Your task to perform on an android device: Search for macbook on costco, select the first entry, and add it to the cart. Image 0: 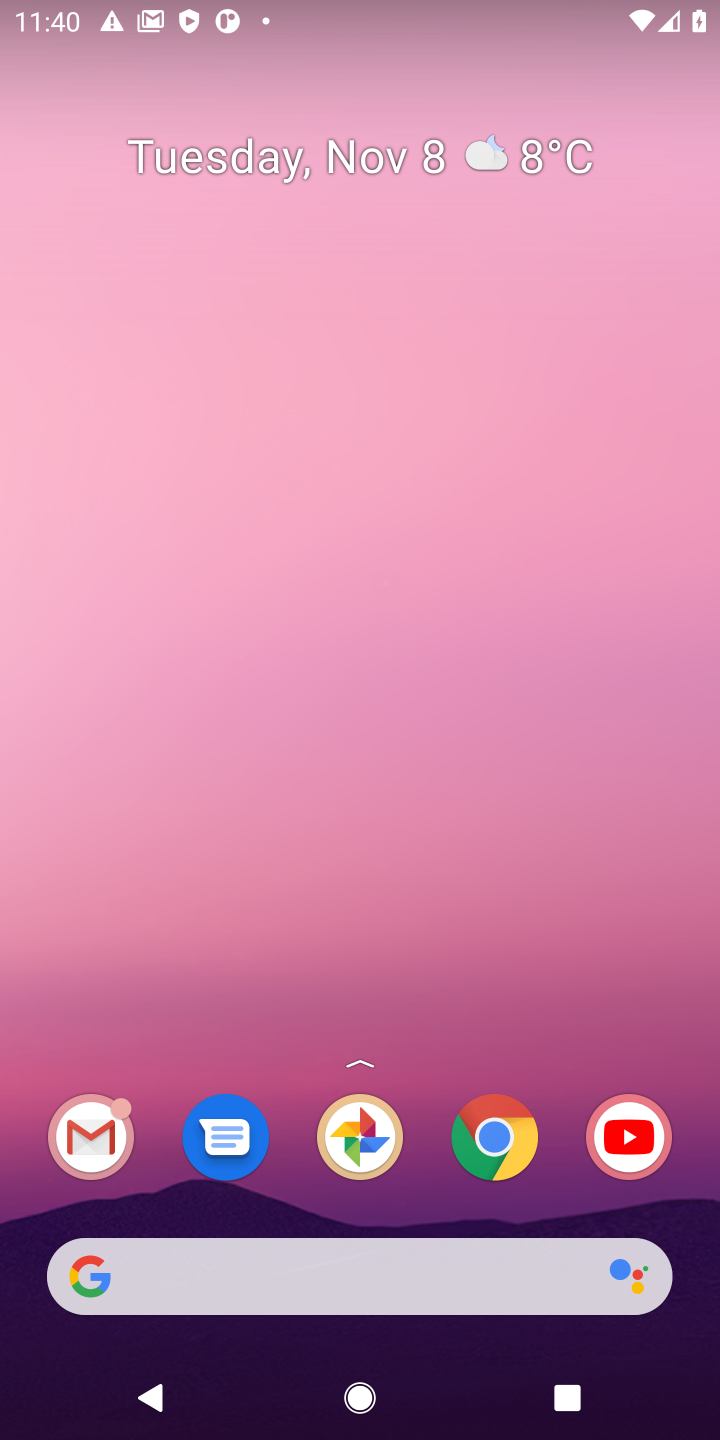
Step 0: click (500, 1151)
Your task to perform on an android device: Search for macbook on costco, select the first entry, and add it to the cart. Image 1: 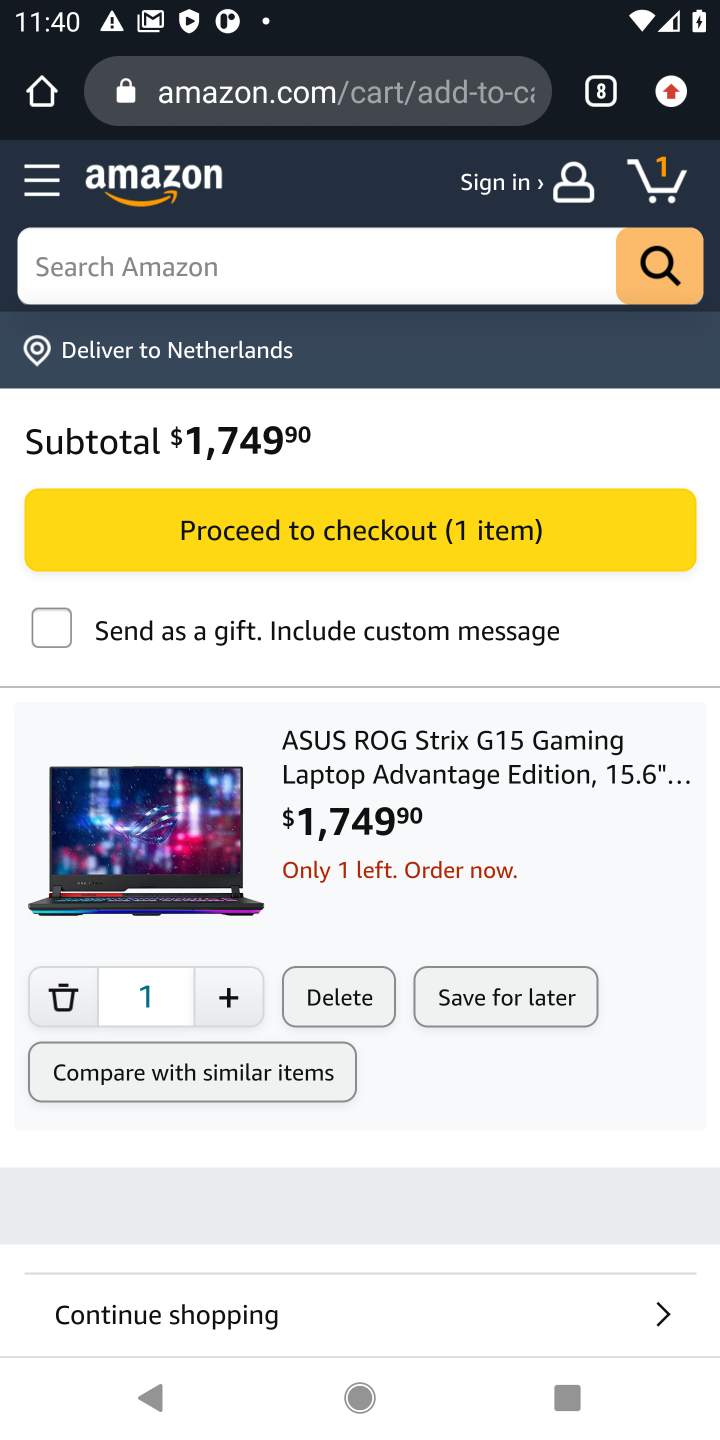
Step 1: click (605, 106)
Your task to perform on an android device: Search for macbook on costco, select the first entry, and add it to the cart. Image 2: 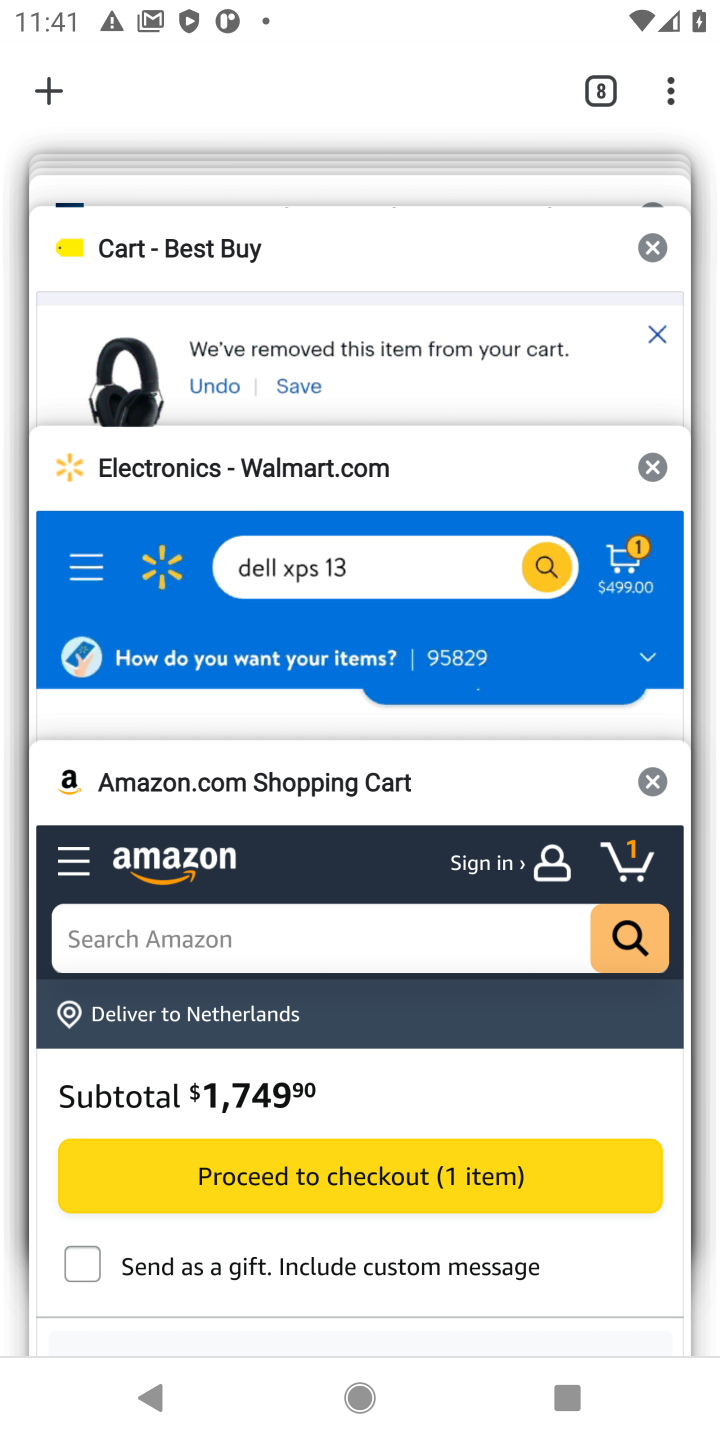
Step 2: drag from (451, 176) to (452, 561)
Your task to perform on an android device: Search for macbook on costco, select the first entry, and add it to the cart. Image 3: 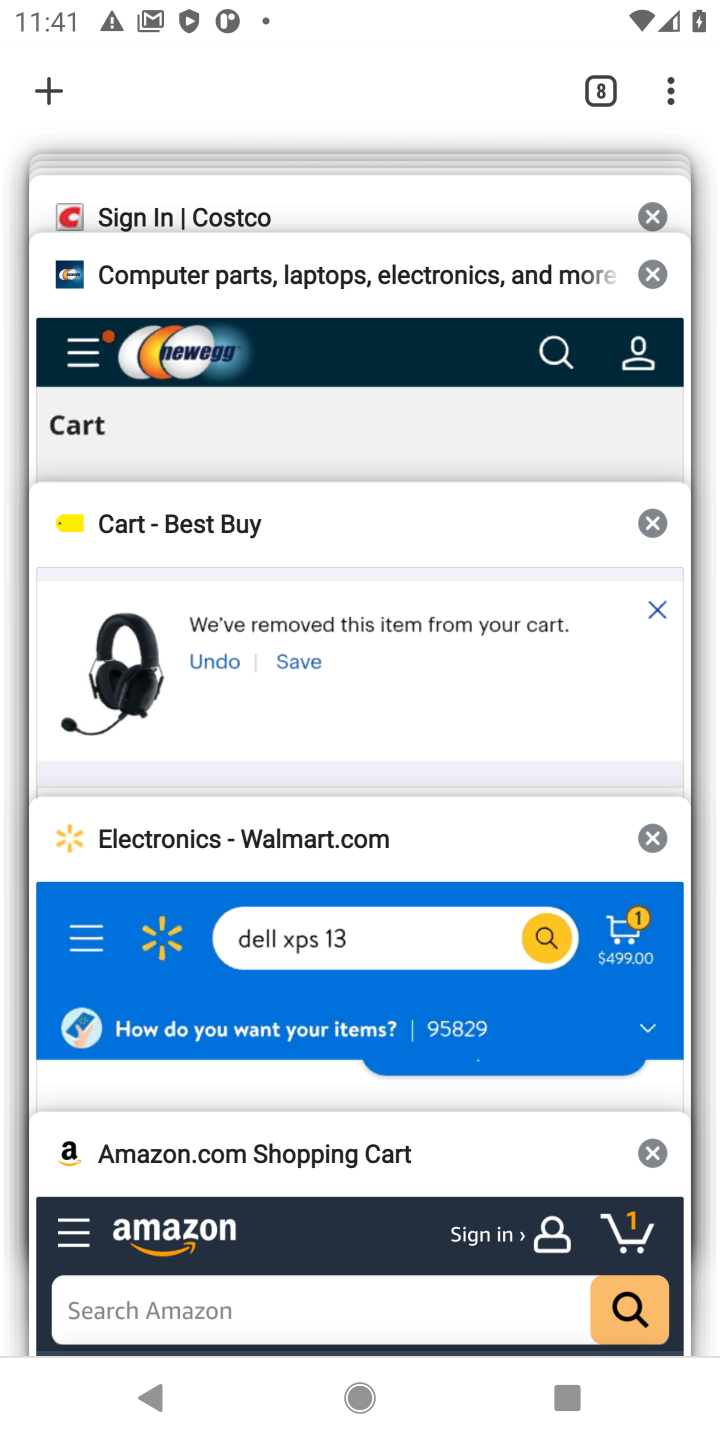
Step 3: click (434, 206)
Your task to perform on an android device: Search for macbook on costco, select the first entry, and add it to the cart. Image 4: 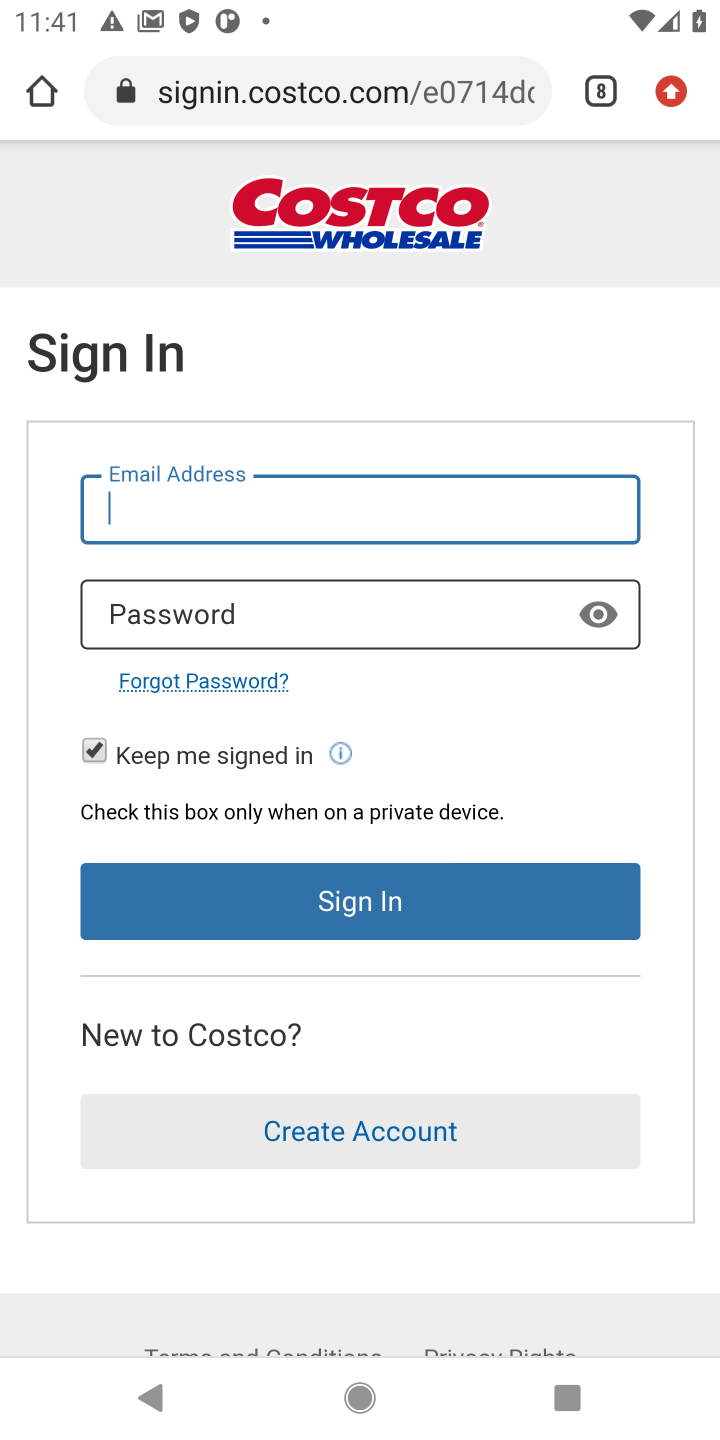
Step 4: press back button
Your task to perform on an android device: Search for macbook on costco, select the first entry, and add it to the cart. Image 5: 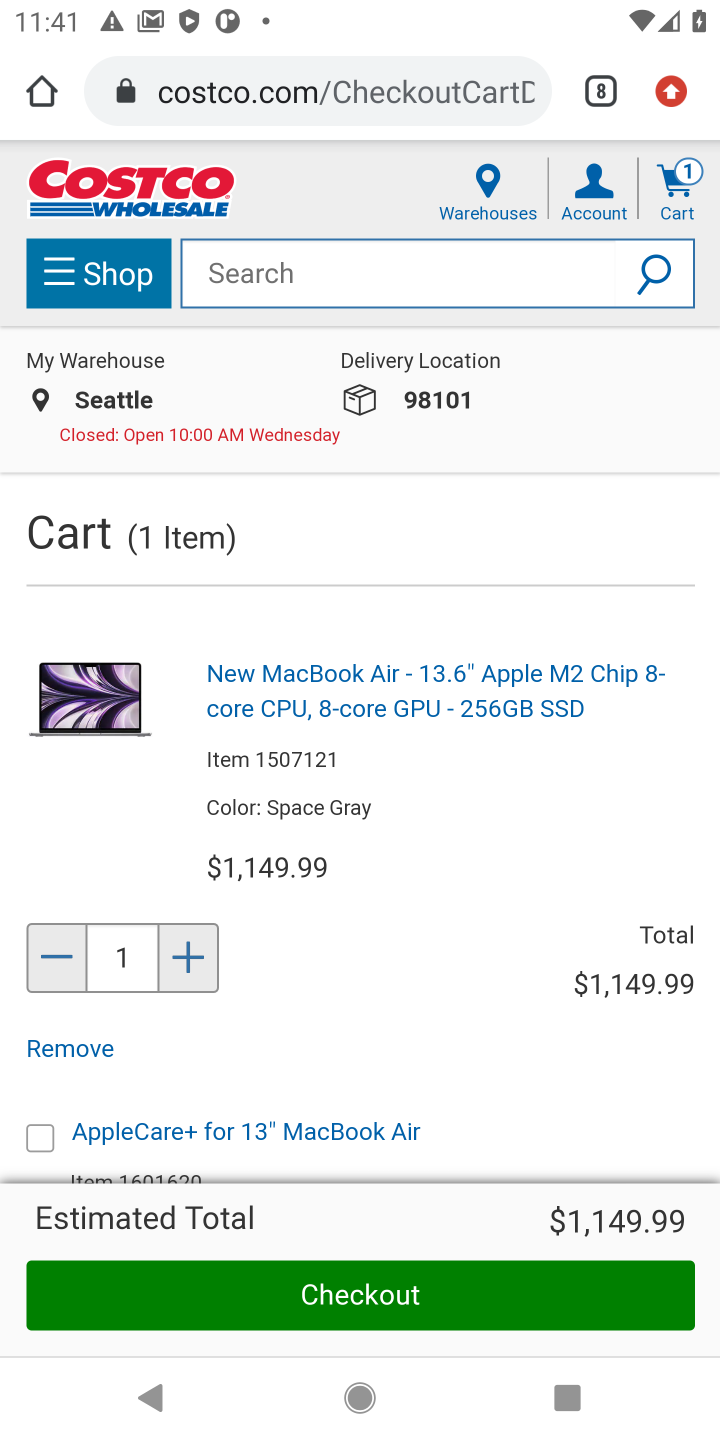
Step 5: click (231, 282)
Your task to perform on an android device: Search for macbook on costco, select the first entry, and add it to the cart. Image 6: 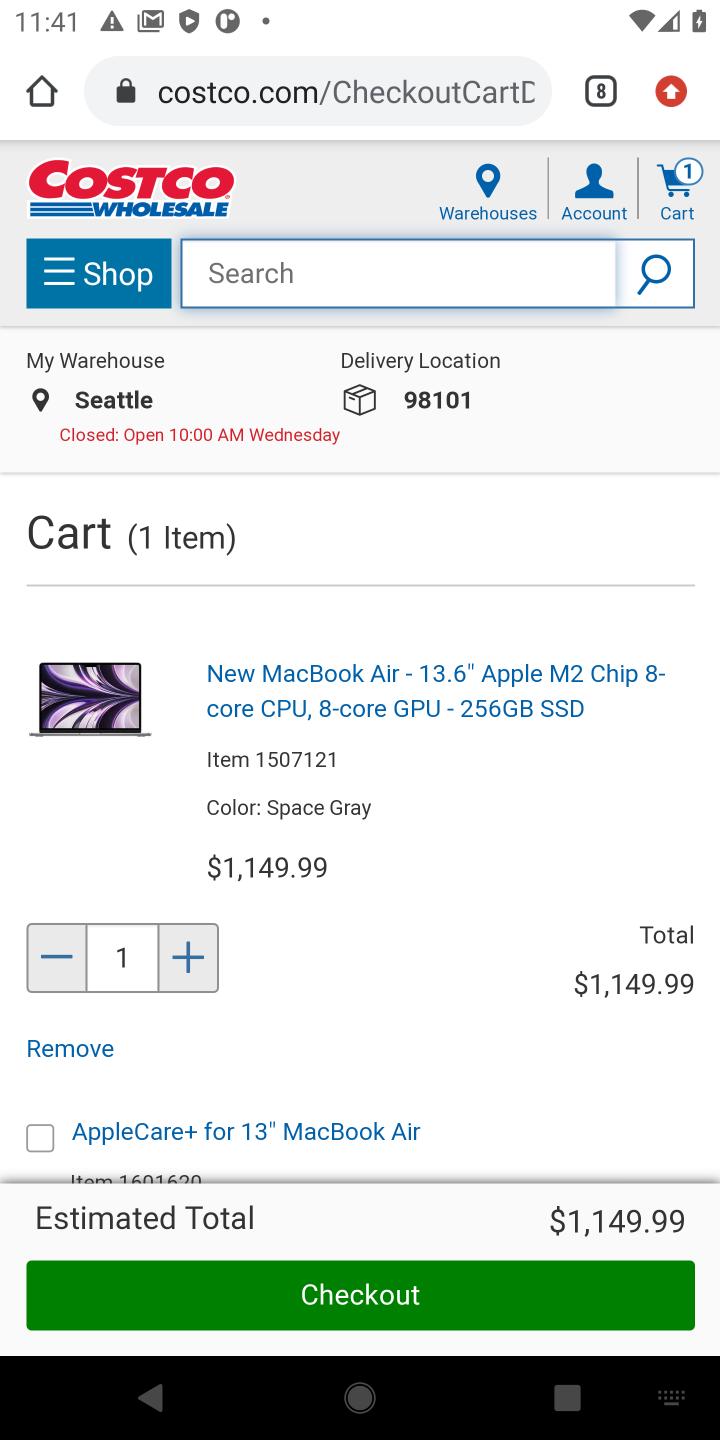
Step 6: type "macbook"
Your task to perform on an android device: Search for macbook on costco, select the first entry, and add it to the cart. Image 7: 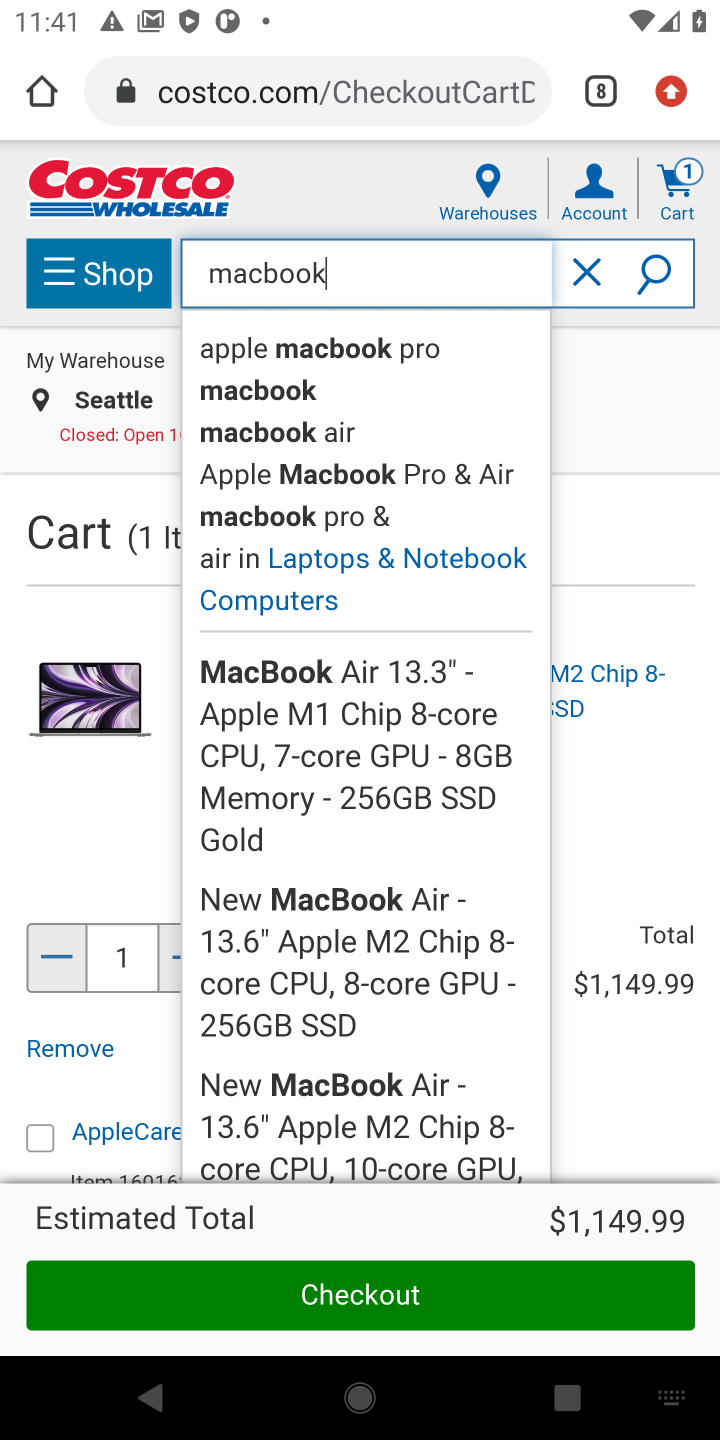
Step 7: click (304, 338)
Your task to perform on an android device: Search for macbook on costco, select the first entry, and add it to the cart. Image 8: 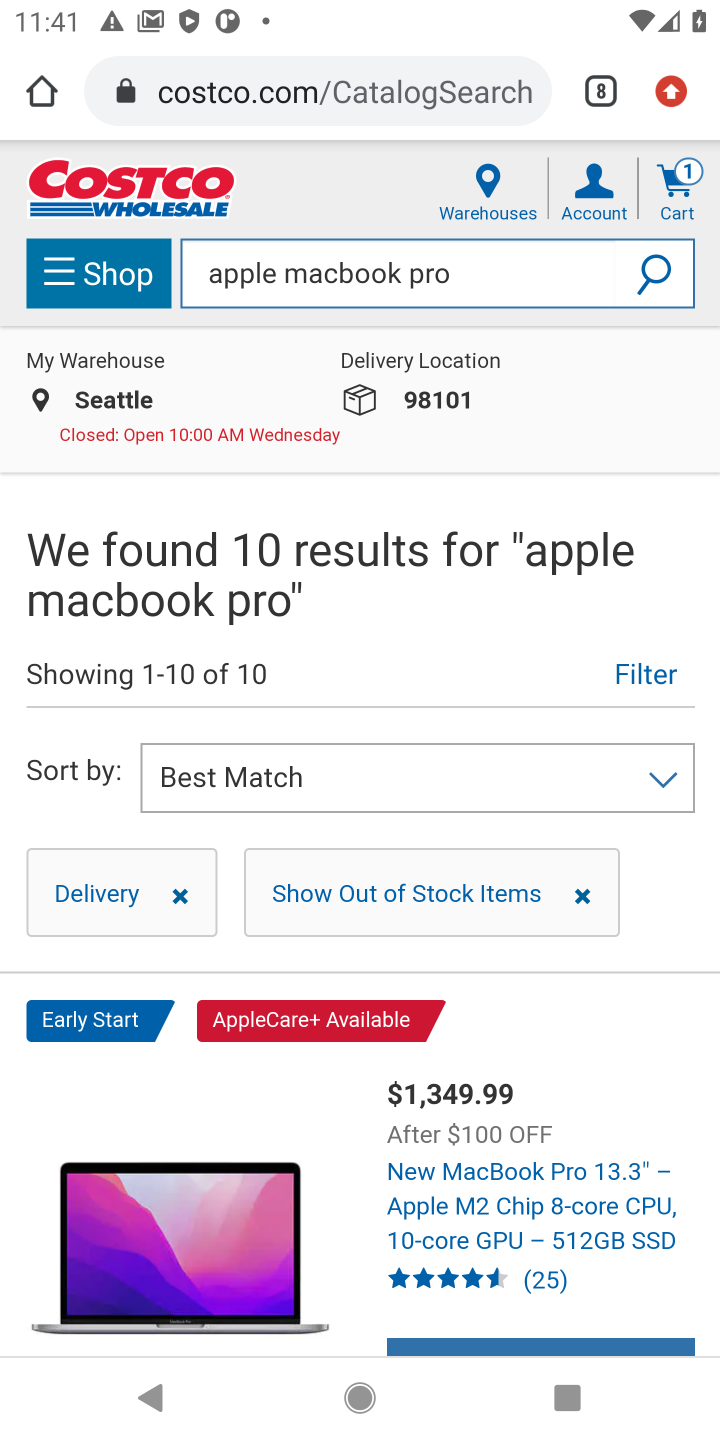
Step 8: drag from (626, 608) to (644, 530)
Your task to perform on an android device: Search for macbook on costco, select the first entry, and add it to the cart. Image 9: 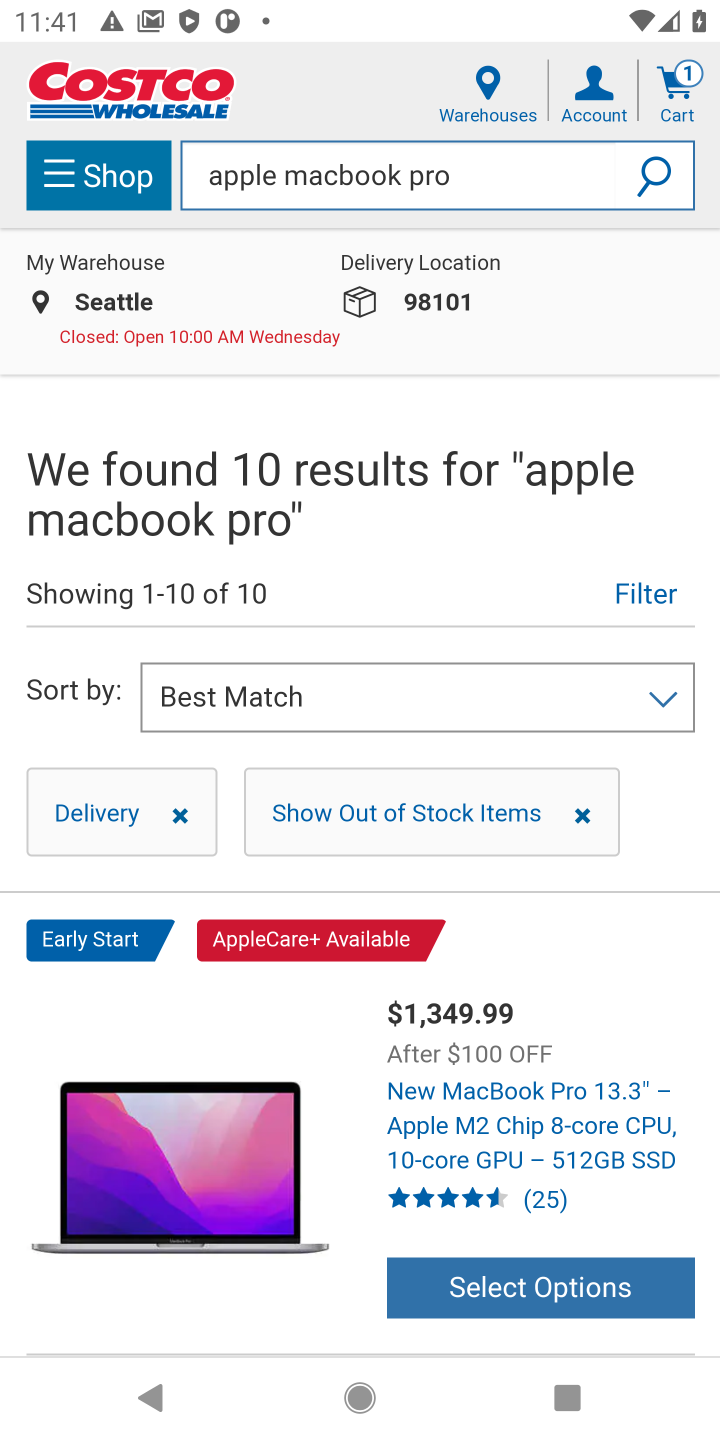
Step 9: click (534, 1118)
Your task to perform on an android device: Search for macbook on costco, select the first entry, and add it to the cart. Image 10: 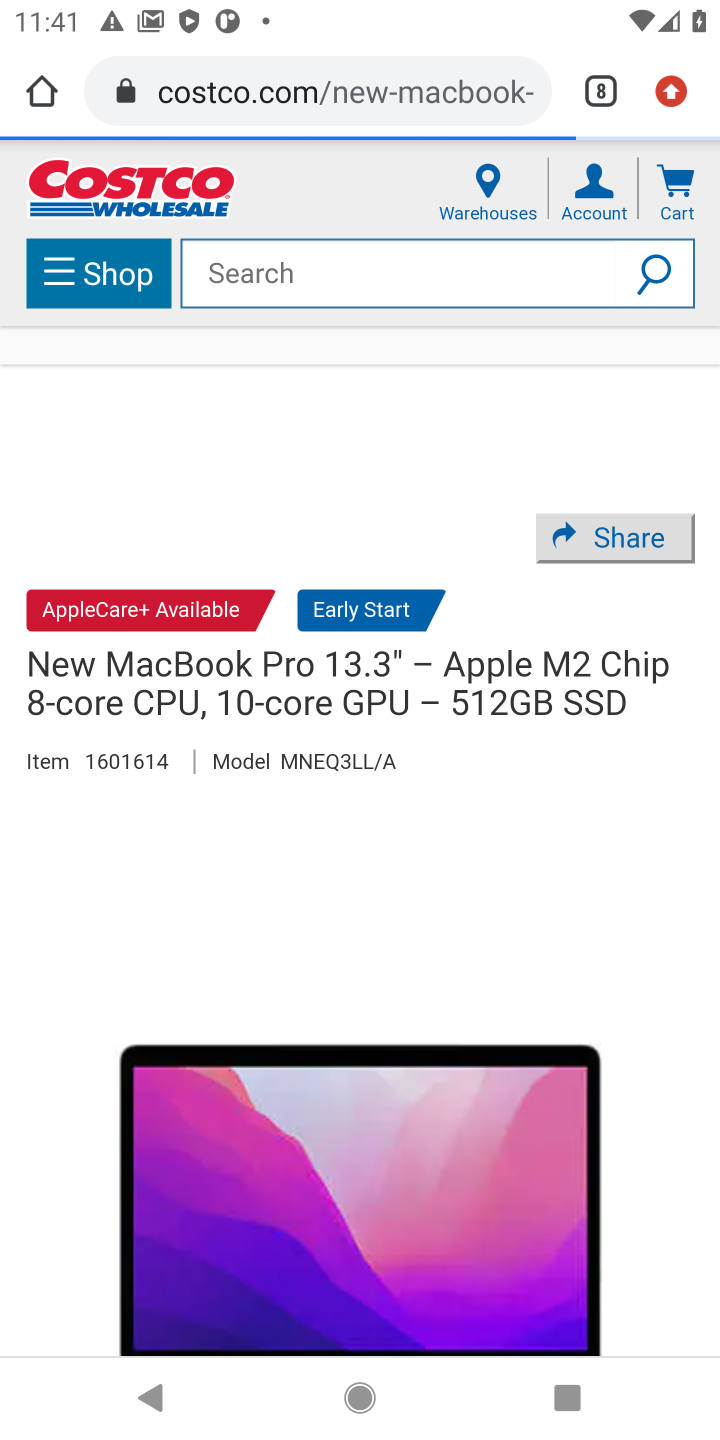
Step 10: drag from (567, 866) to (692, 16)
Your task to perform on an android device: Search for macbook on costco, select the first entry, and add it to the cart. Image 11: 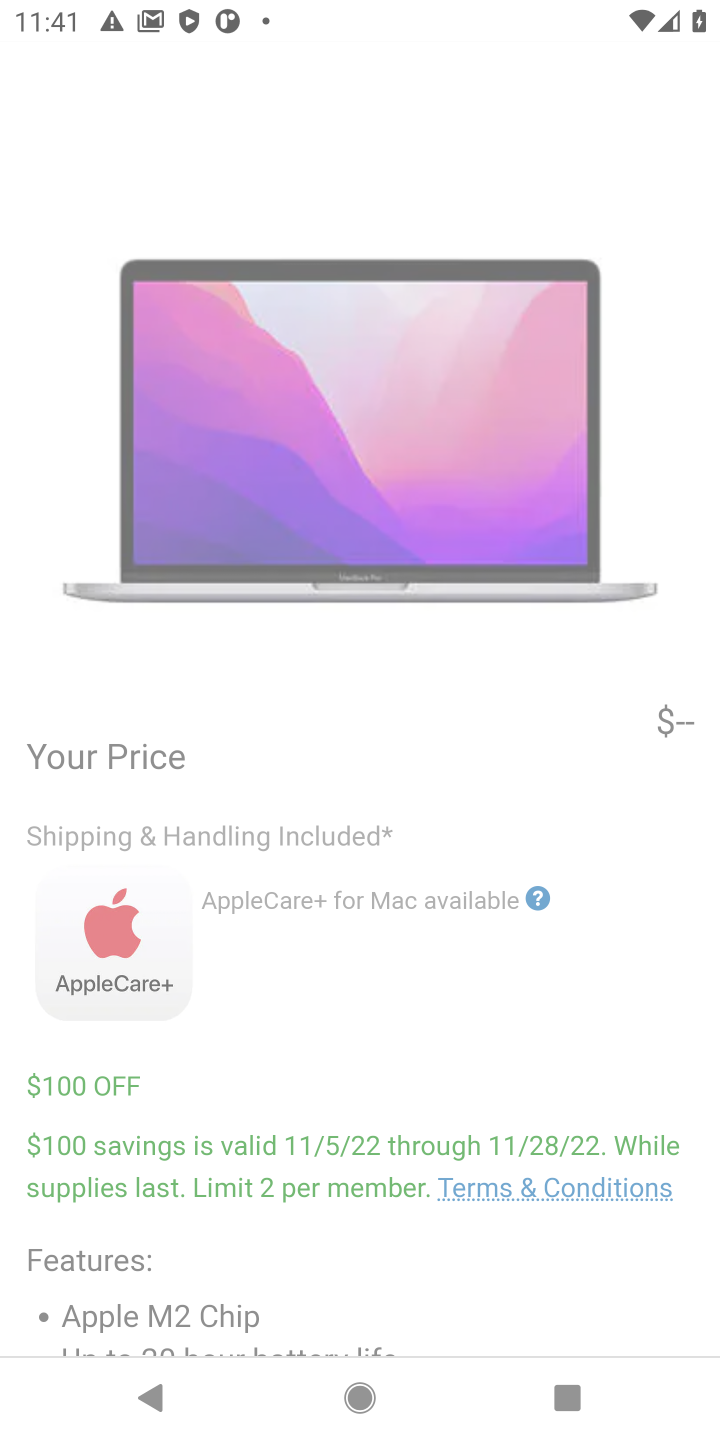
Step 11: drag from (430, 1069) to (537, 405)
Your task to perform on an android device: Search for macbook on costco, select the first entry, and add it to the cart. Image 12: 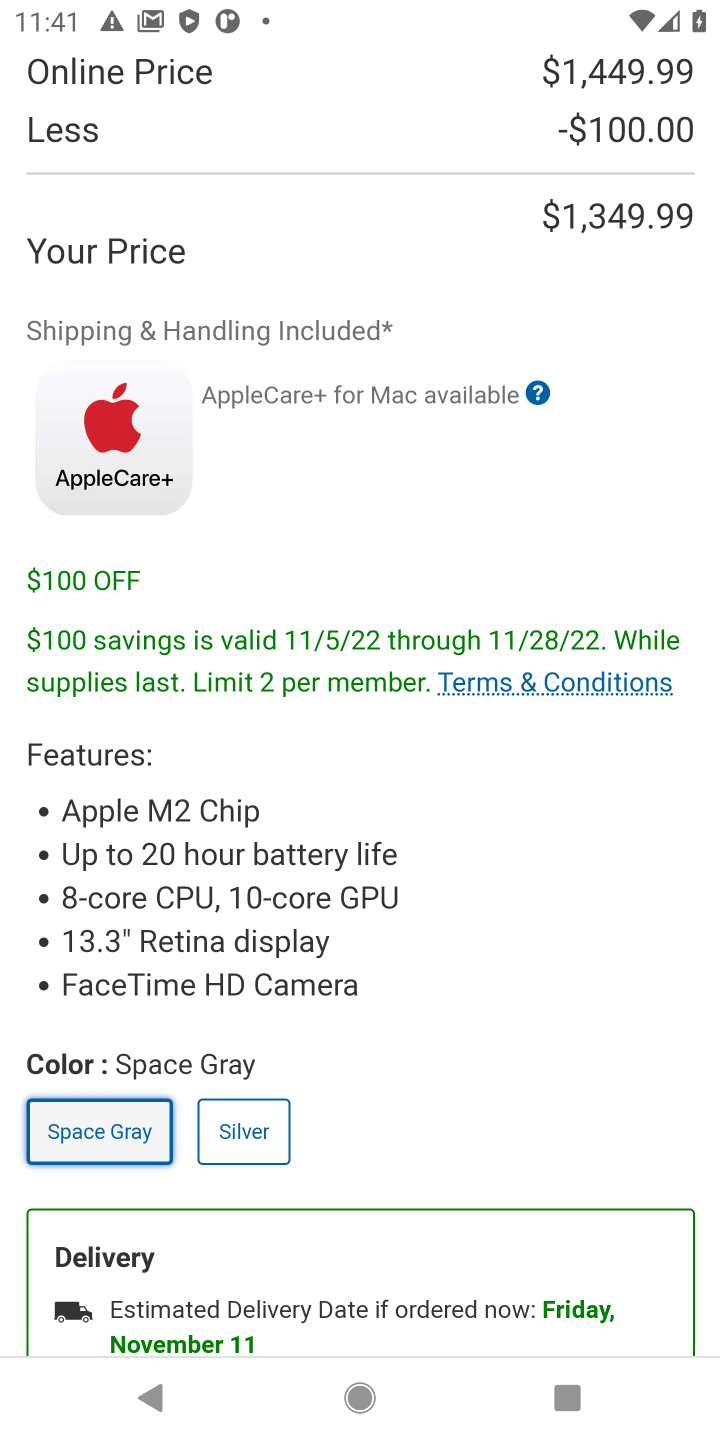
Step 12: drag from (373, 1182) to (427, 441)
Your task to perform on an android device: Search for macbook on costco, select the first entry, and add it to the cart. Image 13: 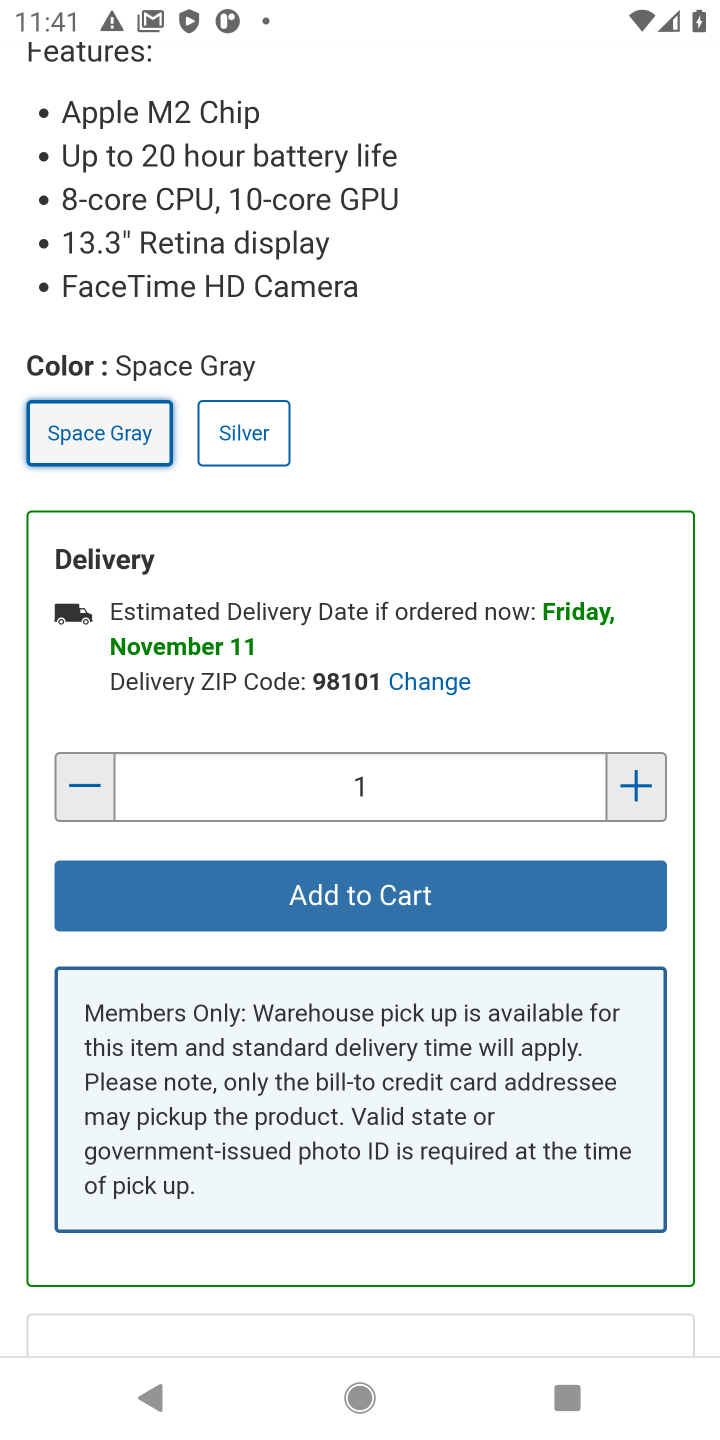
Step 13: click (352, 885)
Your task to perform on an android device: Search for macbook on costco, select the first entry, and add it to the cart. Image 14: 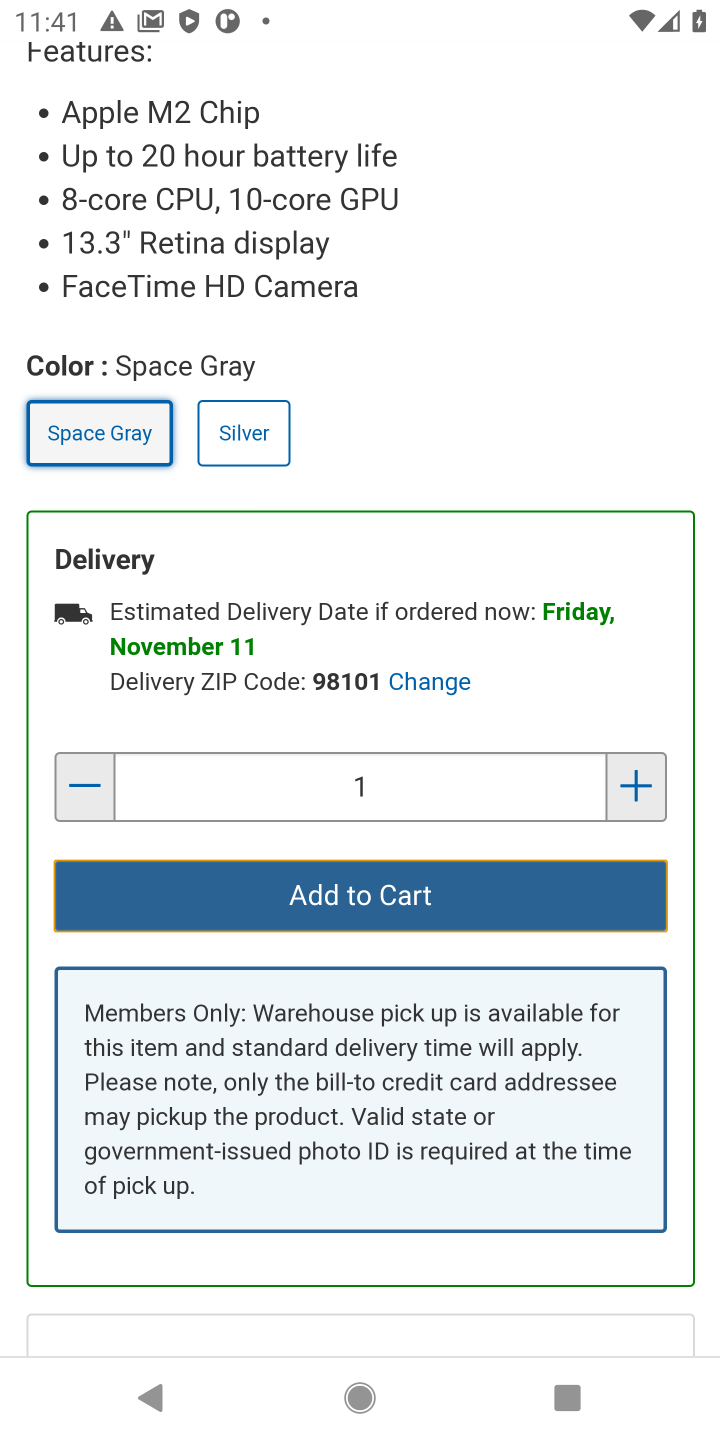
Step 14: click (525, 890)
Your task to perform on an android device: Search for macbook on costco, select the first entry, and add it to the cart. Image 15: 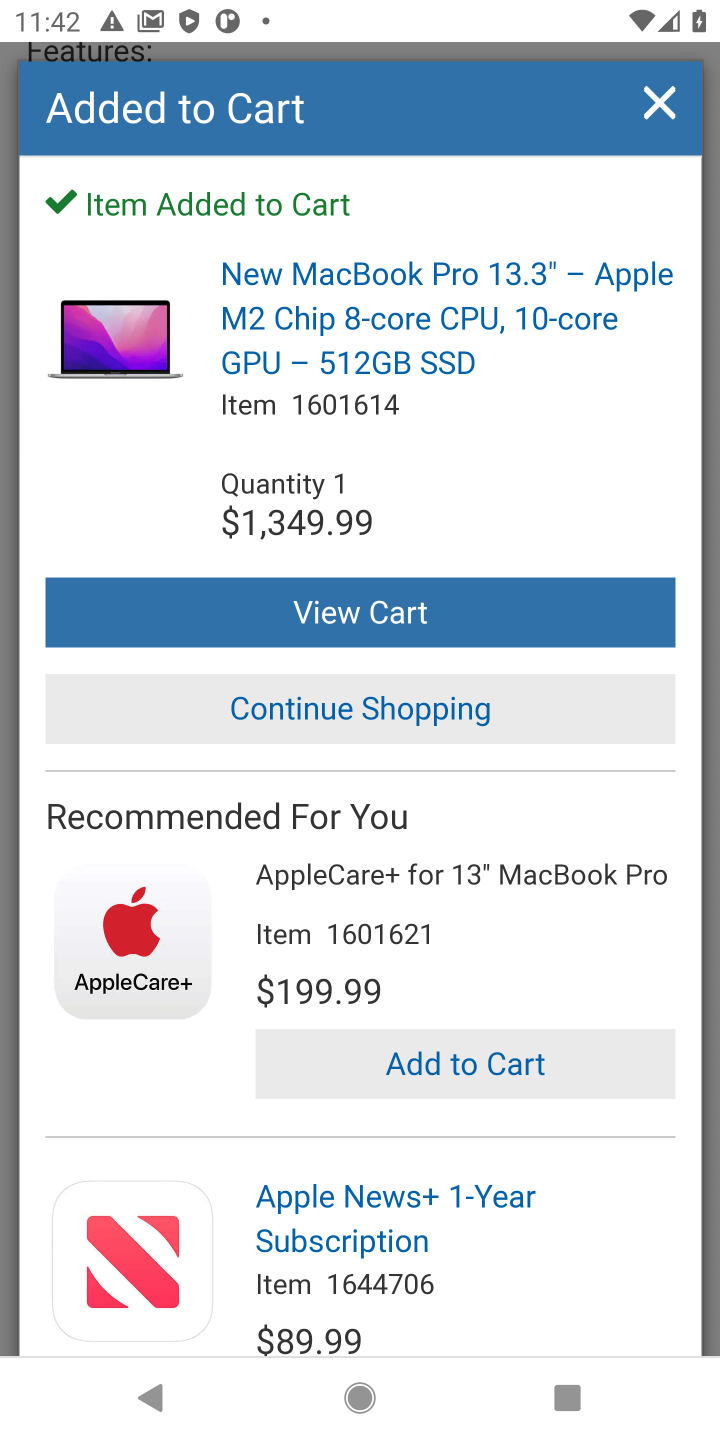
Step 15: task complete